Your task to perform on an android device: Check the weather Image 0: 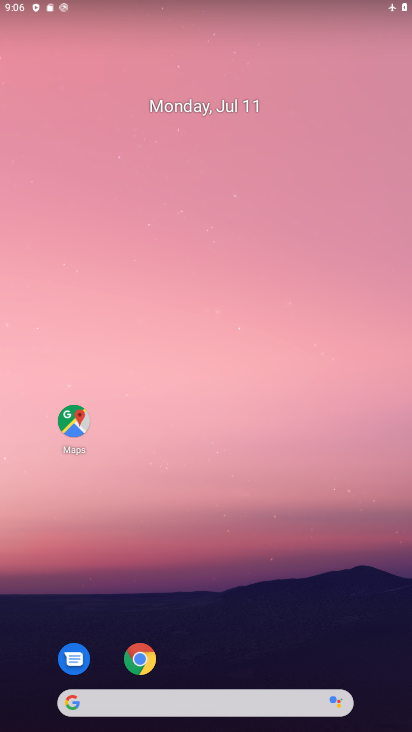
Step 0: drag from (206, 649) to (206, 130)
Your task to perform on an android device: Check the weather Image 1: 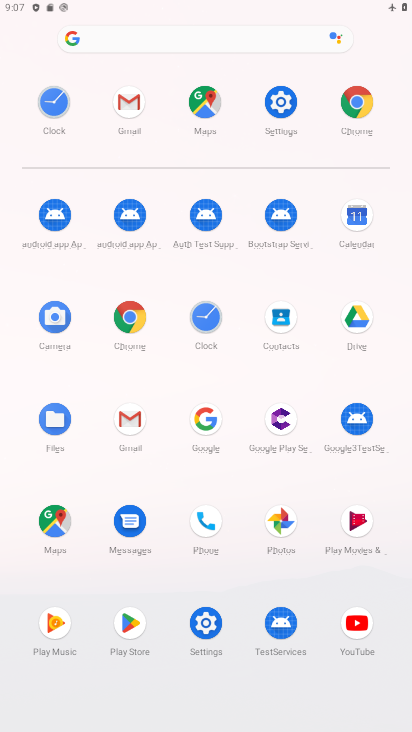
Step 1: click (210, 426)
Your task to perform on an android device: Check the weather Image 2: 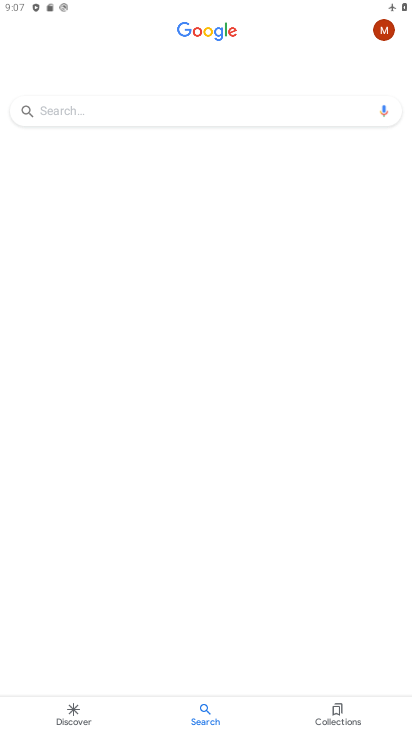
Step 2: click (101, 107)
Your task to perform on an android device: Check the weather Image 3: 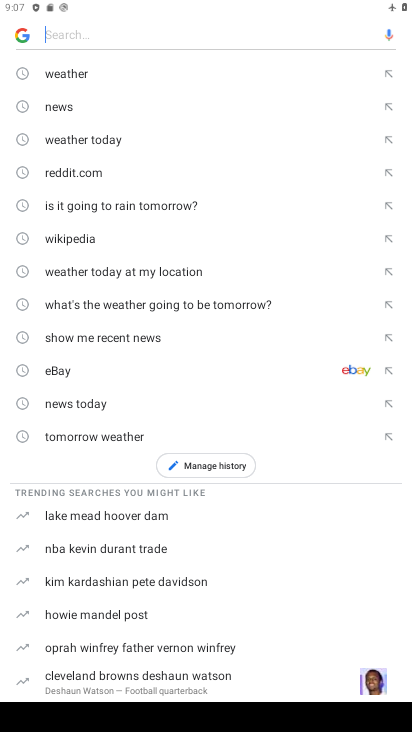
Step 3: click (101, 70)
Your task to perform on an android device: Check the weather Image 4: 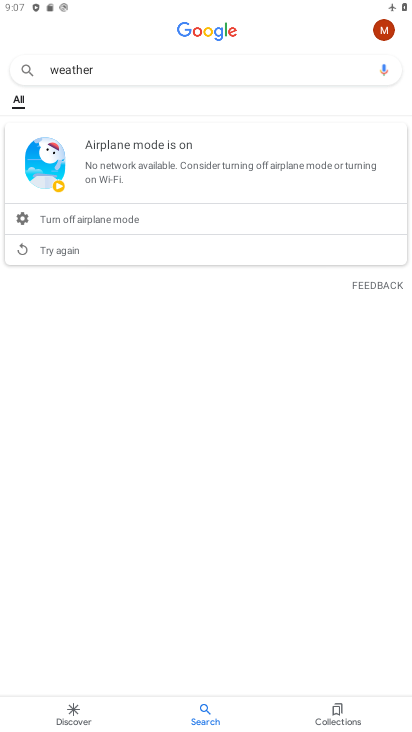
Step 4: task complete